Your task to perform on an android device: Go to eBay Image 0: 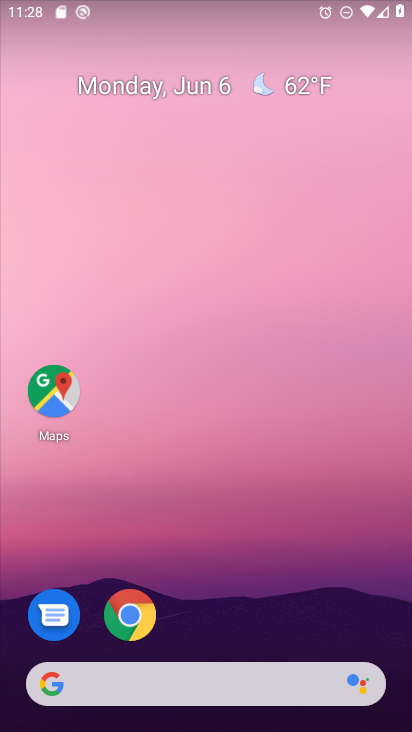
Step 0: press home button
Your task to perform on an android device: Go to eBay Image 1: 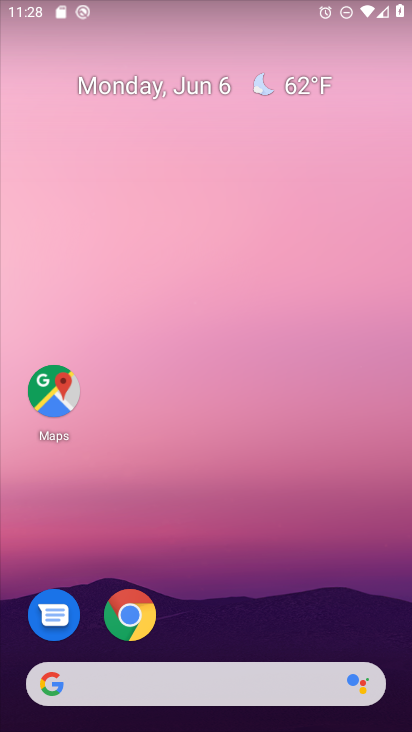
Step 1: click (137, 628)
Your task to perform on an android device: Go to eBay Image 2: 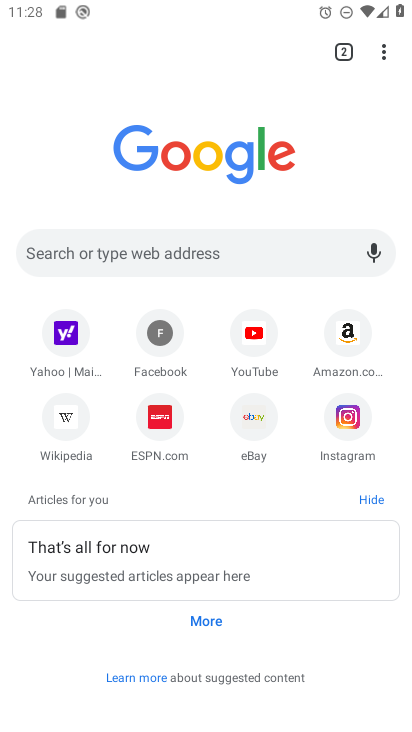
Step 2: click (267, 404)
Your task to perform on an android device: Go to eBay Image 3: 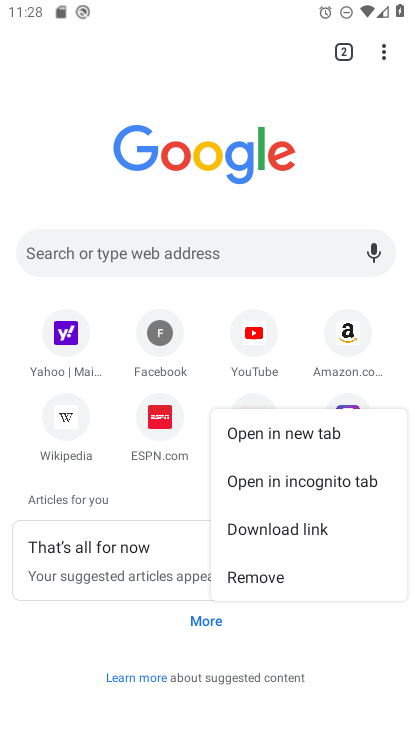
Step 3: click (251, 395)
Your task to perform on an android device: Go to eBay Image 4: 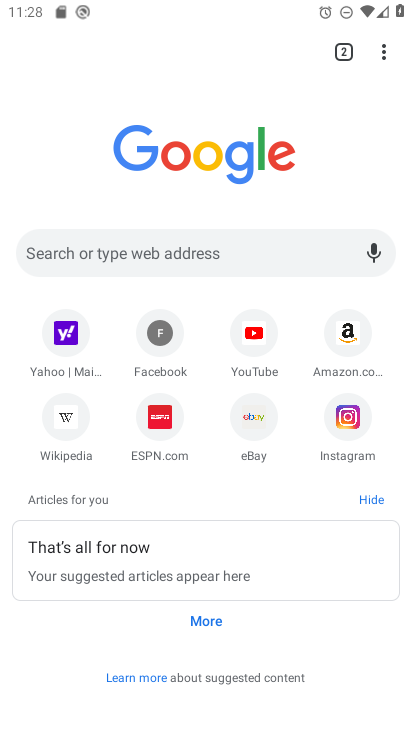
Step 4: click (251, 395)
Your task to perform on an android device: Go to eBay Image 5: 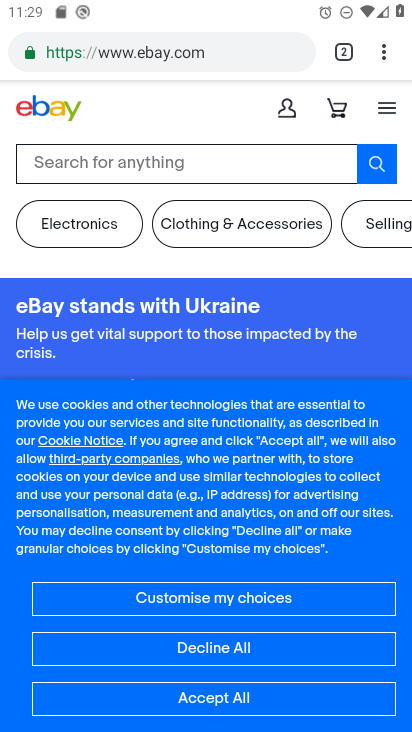
Step 5: task complete